Your task to perform on an android device: Go to Yahoo.com Image 0: 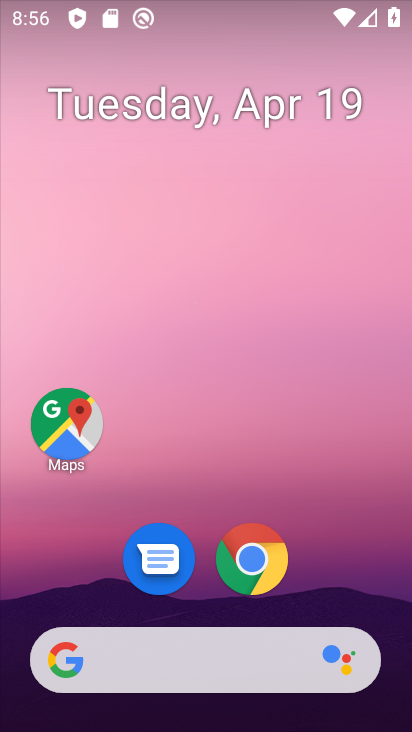
Step 0: click (252, 575)
Your task to perform on an android device: Go to Yahoo.com Image 1: 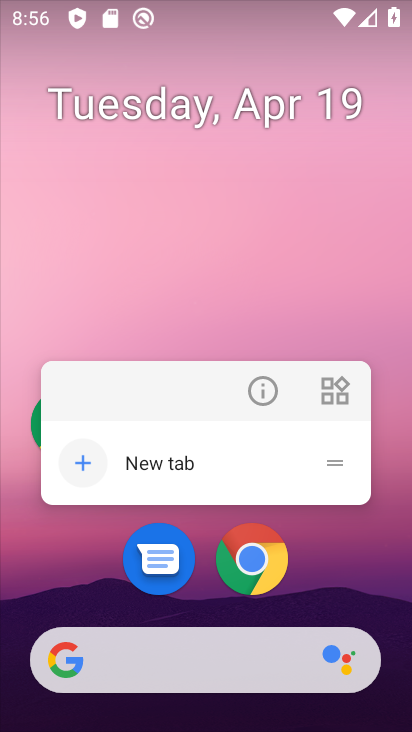
Step 1: click (252, 575)
Your task to perform on an android device: Go to Yahoo.com Image 2: 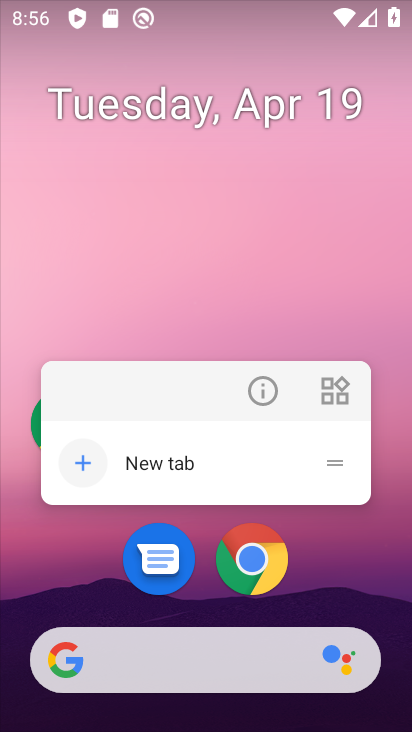
Step 2: click (254, 575)
Your task to perform on an android device: Go to Yahoo.com Image 3: 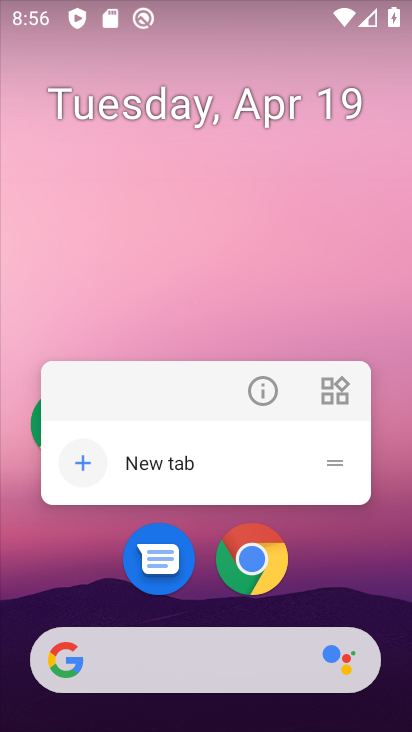
Step 3: click (236, 550)
Your task to perform on an android device: Go to Yahoo.com Image 4: 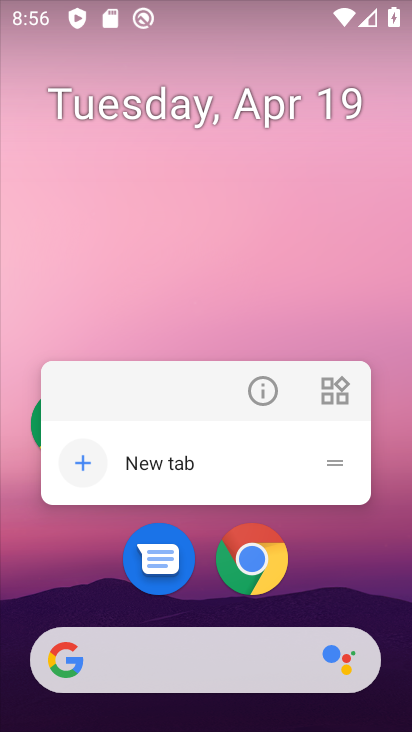
Step 4: click (251, 550)
Your task to perform on an android device: Go to Yahoo.com Image 5: 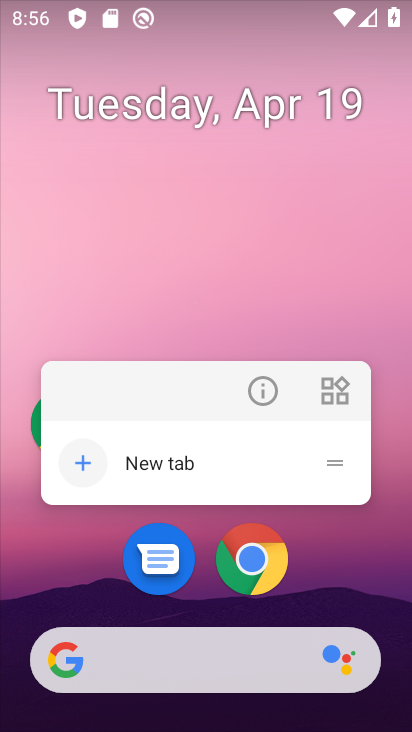
Step 5: click (251, 550)
Your task to perform on an android device: Go to Yahoo.com Image 6: 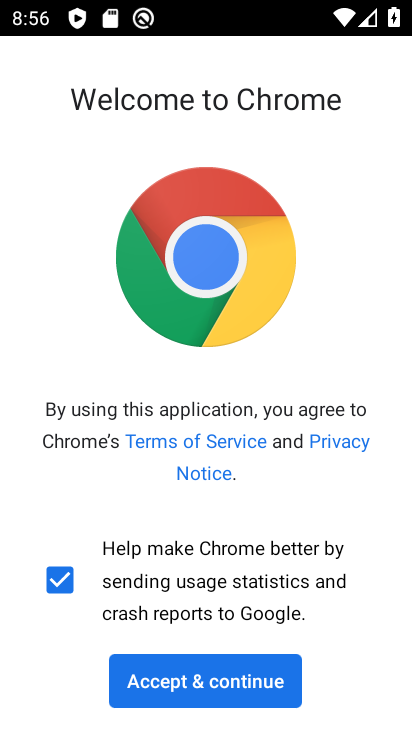
Step 6: click (251, 681)
Your task to perform on an android device: Go to Yahoo.com Image 7: 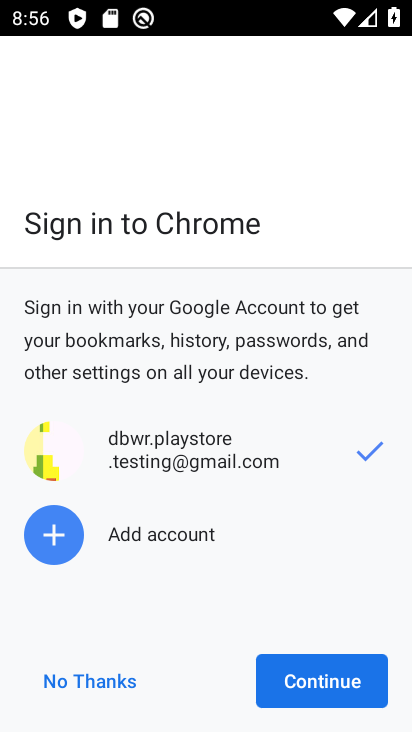
Step 7: click (343, 673)
Your task to perform on an android device: Go to Yahoo.com Image 8: 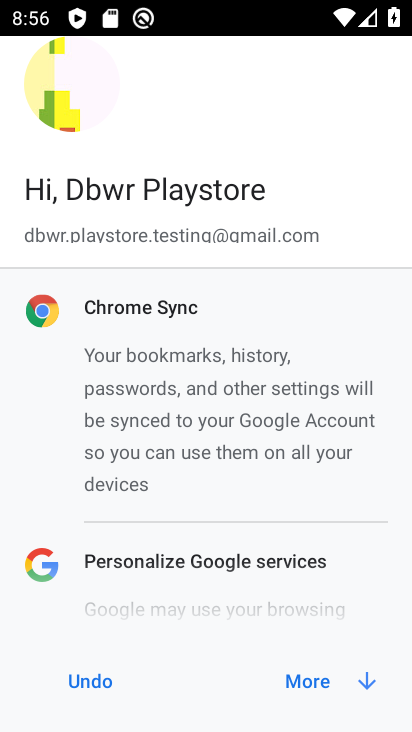
Step 8: click (306, 678)
Your task to perform on an android device: Go to Yahoo.com Image 9: 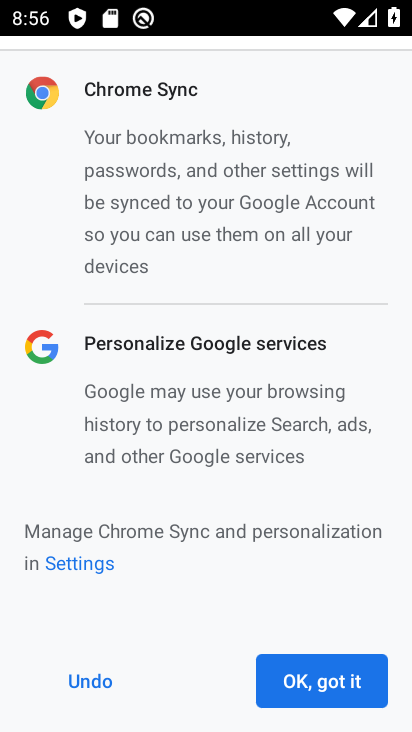
Step 9: click (306, 678)
Your task to perform on an android device: Go to Yahoo.com Image 10: 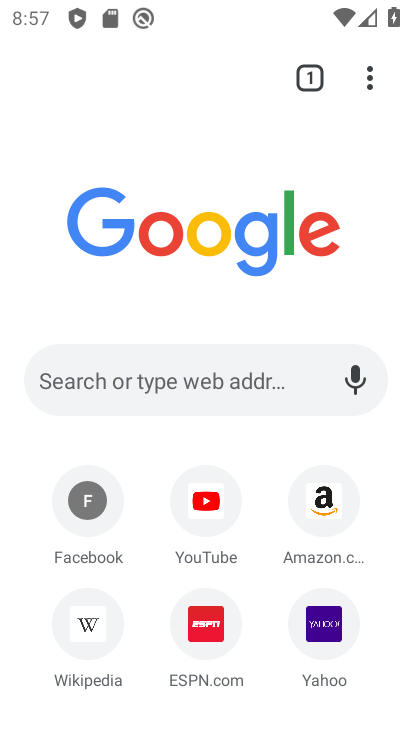
Step 10: click (306, 621)
Your task to perform on an android device: Go to Yahoo.com Image 11: 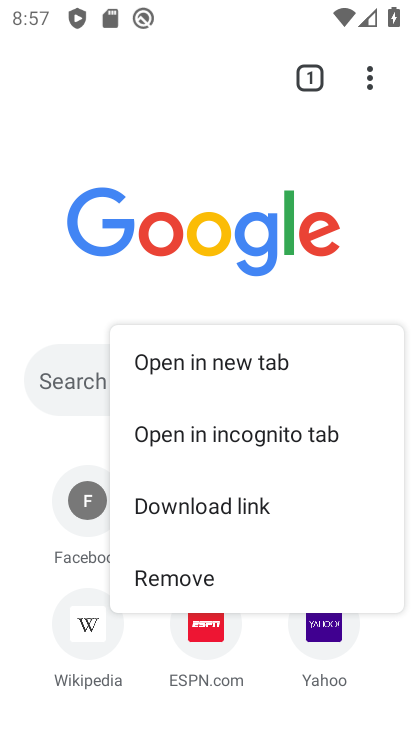
Step 11: click (175, 365)
Your task to perform on an android device: Go to Yahoo.com Image 12: 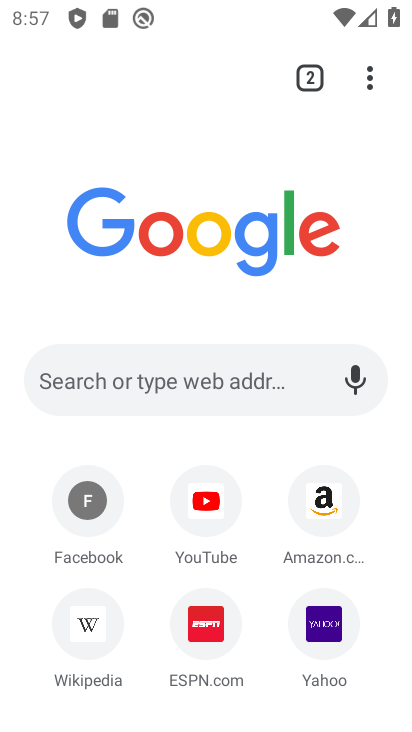
Step 12: click (335, 618)
Your task to perform on an android device: Go to Yahoo.com Image 13: 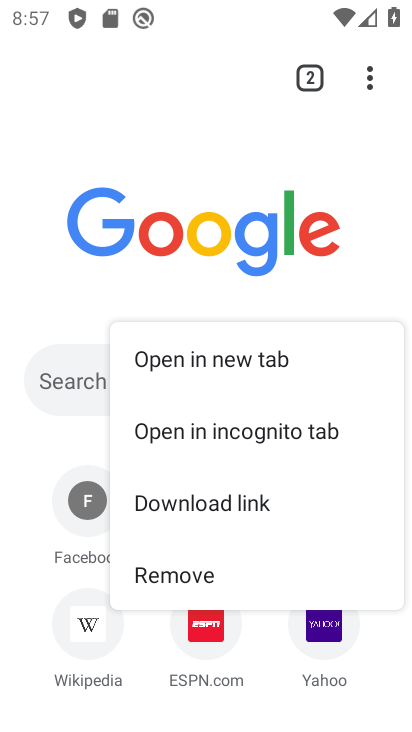
Step 13: click (321, 627)
Your task to perform on an android device: Go to Yahoo.com Image 14: 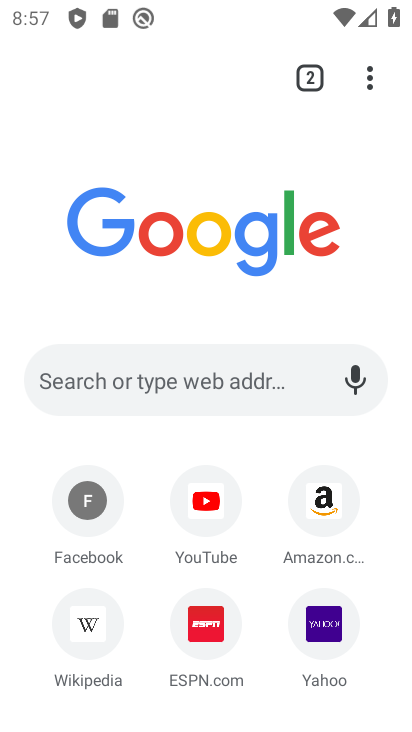
Step 14: click (321, 627)
Your task to perform on an android device: Go to Yahoo.com Image 15: 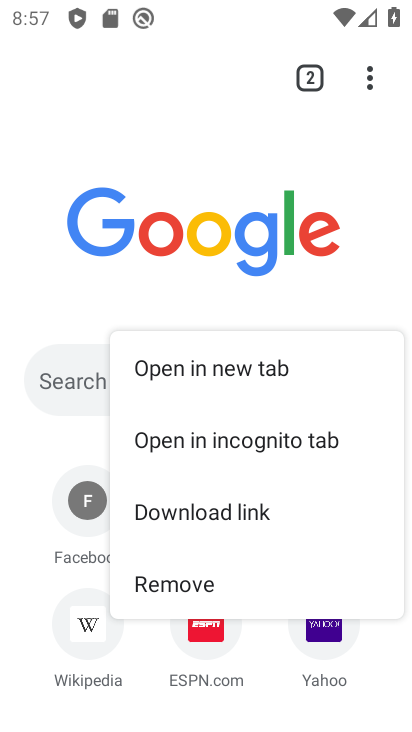
Step 15: click (82, 377)
Your task to perform on an android device: Go to Yahoo.com Image 16: 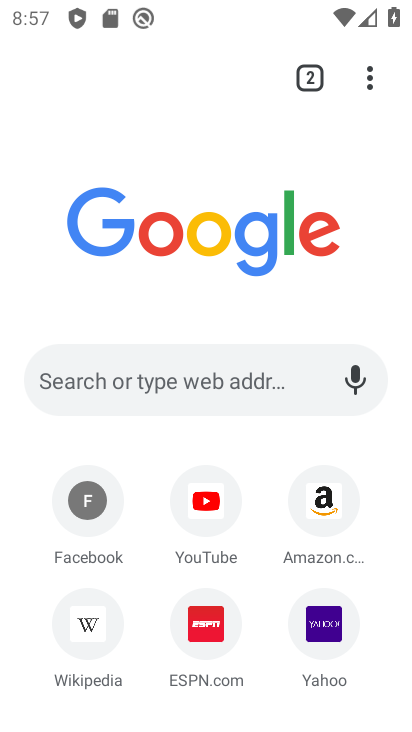
Step 16: click (82, 377)
Your task to perform on an android device: Go to Yahoo.com Image 17: 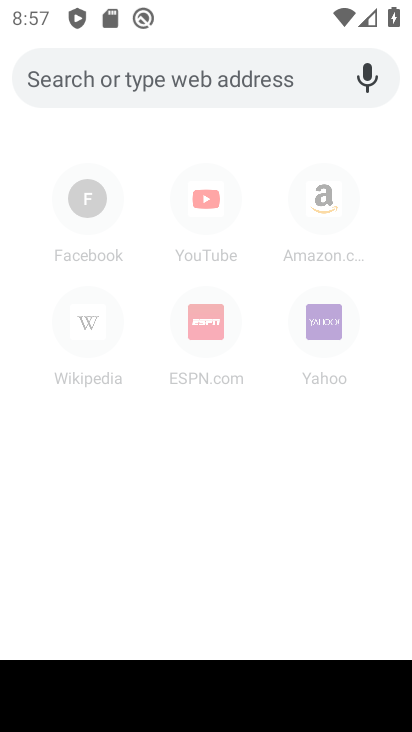
Step 17: type "Yahoo.com"
Your task to perform on an android device: Go to Yahoo.com Image 18: 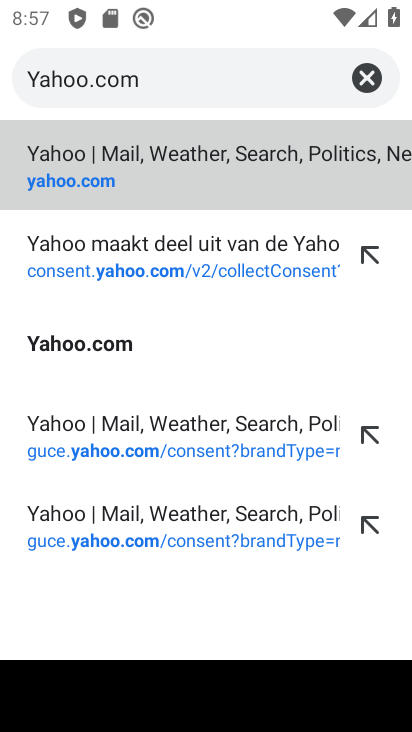
Step 18: click (227, 179)
Your task to perform on an android device: Go to Yahoo.com Image 19: 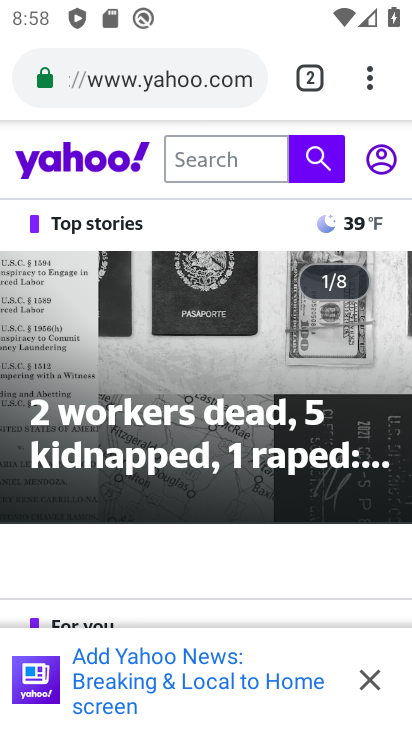
Step 19: drag from (253, 498) to (239, 215)
Your task to perform on an android device: Go to Yahoo.com Image 20: 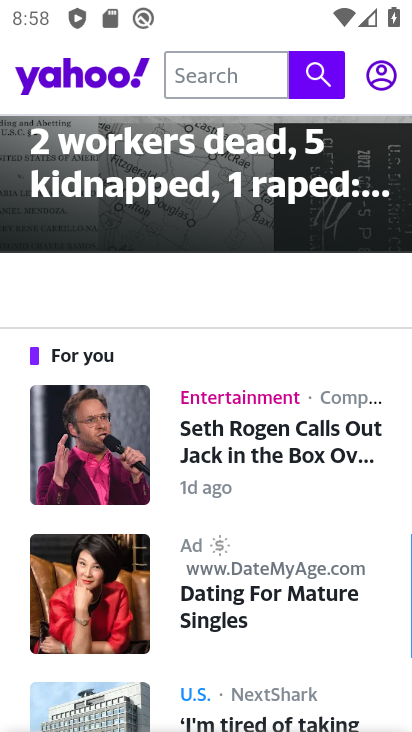
Step 20: drag from (302, 642) to (279, 332)
Your task to perform on an android device: Go to Yahoo.com Image 21: 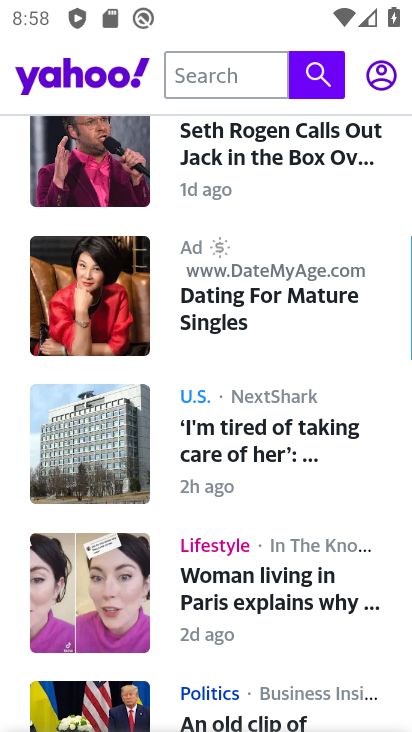
Step 21: drag from (297, 342) to (277, 257)
Your task to perform on an android device: Go to Yahoo.com Image 22: 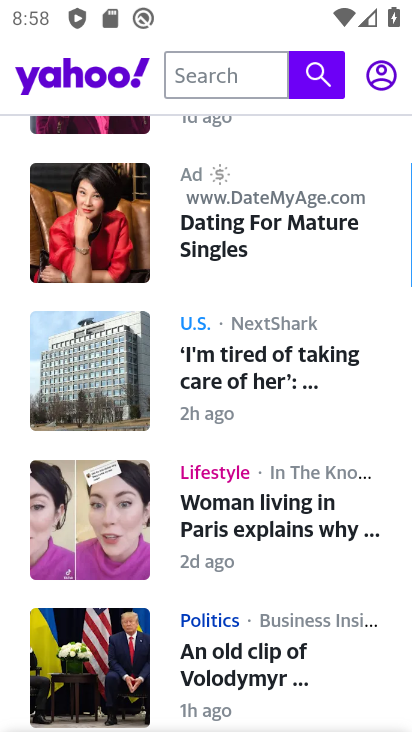
Step 22: click (129, 502)
Your task to perform on an android device: Go to Yahoo.com Image 23: 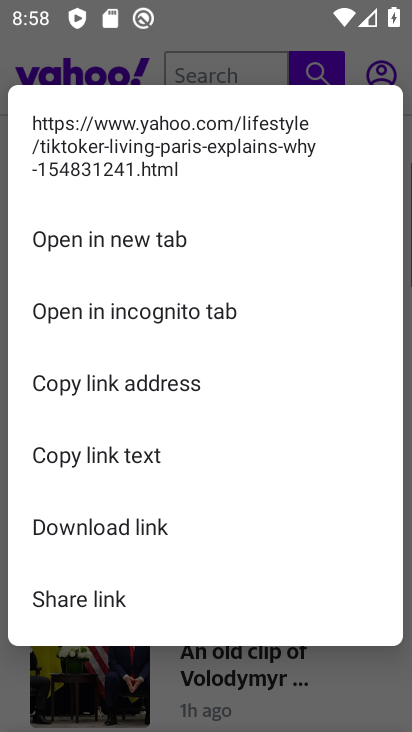
Step 23: click (307, 665)
Your task to perform on an android device: Go to Yahoo.com Image 24: 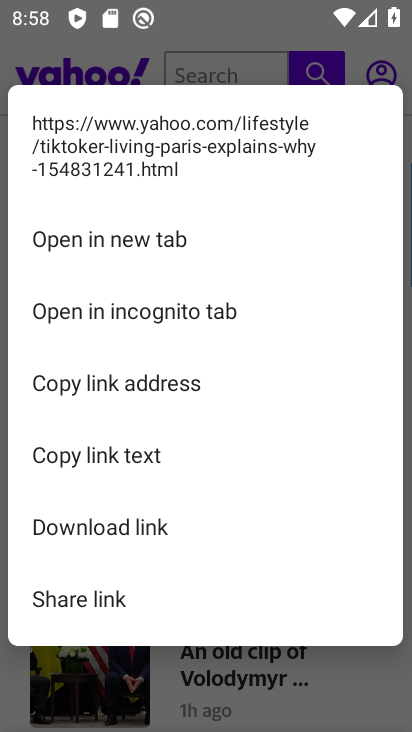
Step 24: click (95, 240)
Your task to perform on an android device: Go to Yahoo.com Image 25: 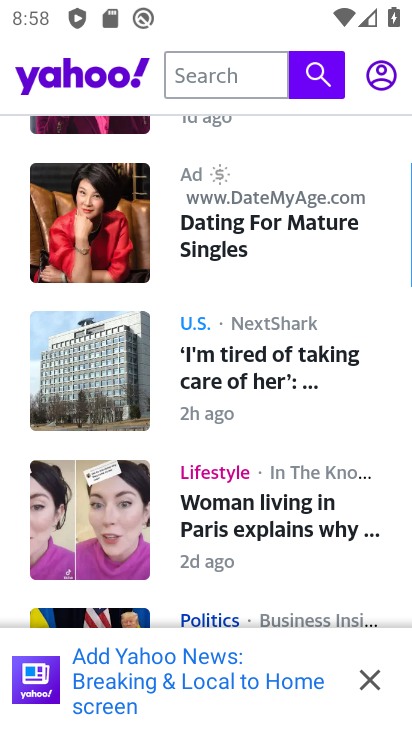
Step 25: click (272, 496)
Your task to perform on an android device: Go to Yahoo.com Image 26: 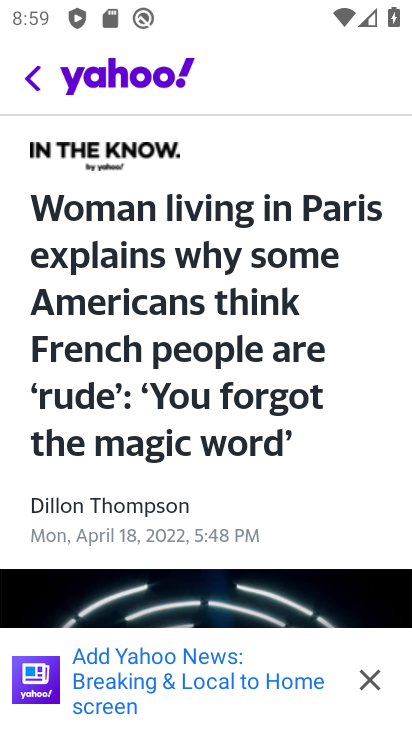
Step 26: drag from (325, 289) to (318, 232)
Your task to perform on an android device: Go to Yahoo.com Image 27: 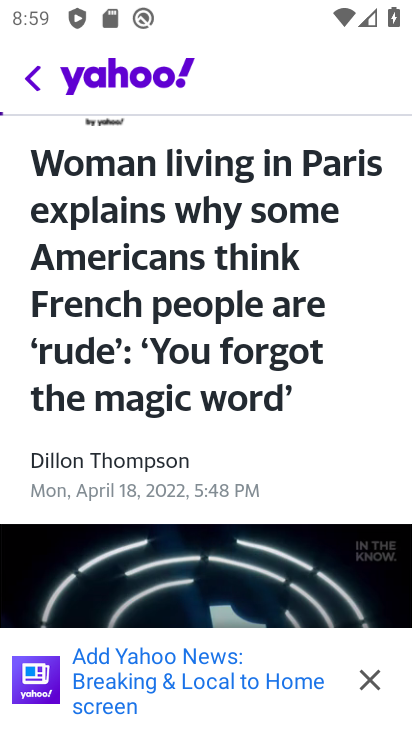
Step 27: drag from (338, 487) to (320, 176)
Your task to perform on an android device: Go to Yahoo.com Image 28: 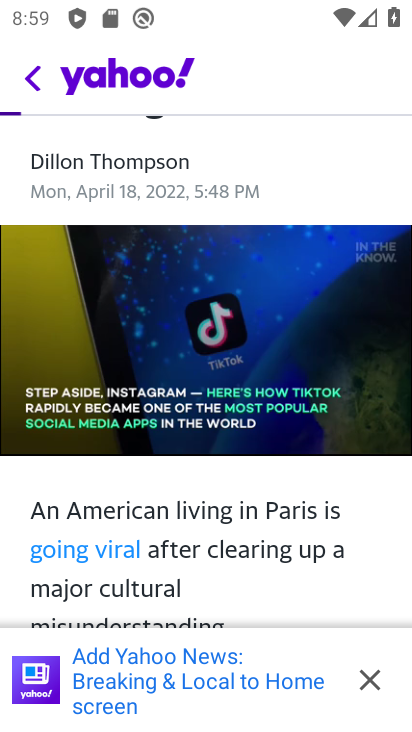
Step 28: click (285, 387)
Your task to perform on an android device: Go to Yahoo.com Image 29: 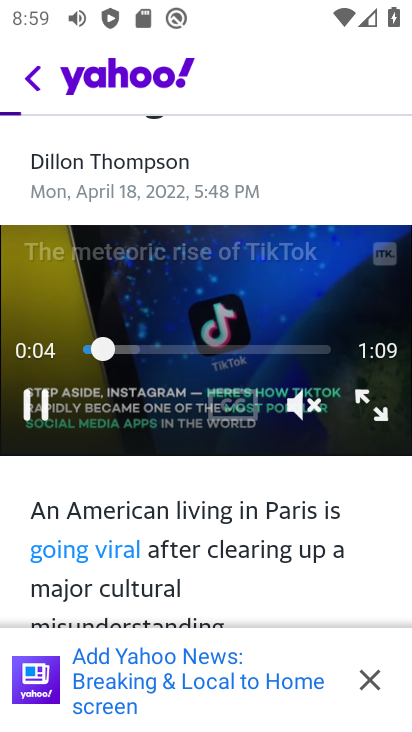
Step 29: task complete